Your task to perform on an android device: turn on javascript in the chrome app Image 0: 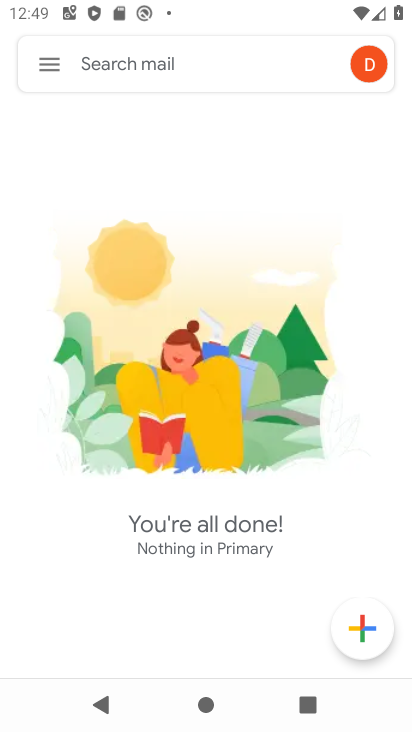
Step 0: press home button
Your task to perform on an android device: turn on javascript in the chrome app Image 1: 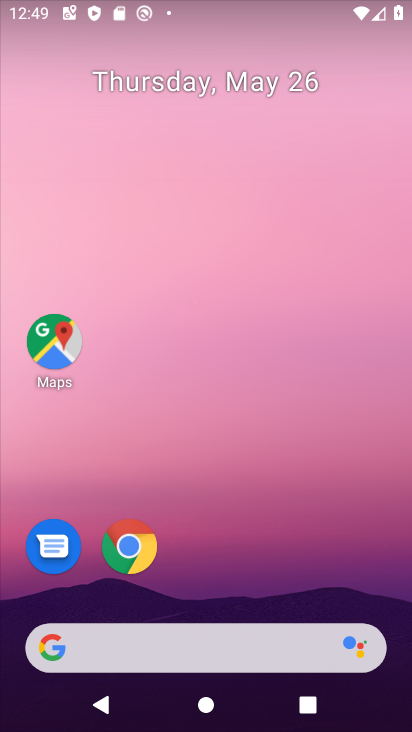
Step 1: click (124, 550)
Your task to perform on an android device: turn on javascript in the chrome app Image 2: 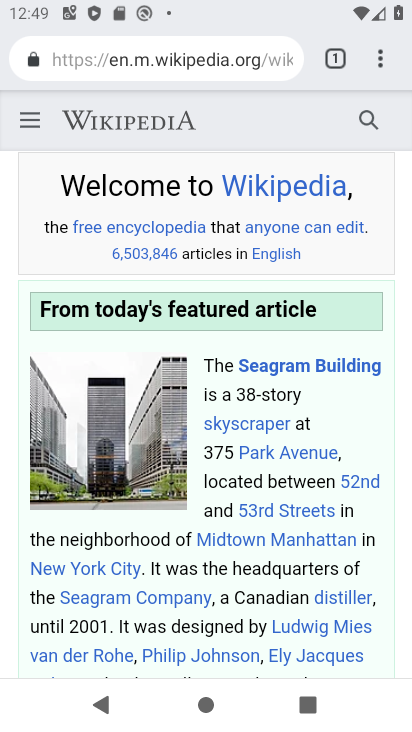
Step 2: drag from (374, 56) to (202, 585)
Your task to perform on an android device: turn on javascript in the chrome app Image 3: 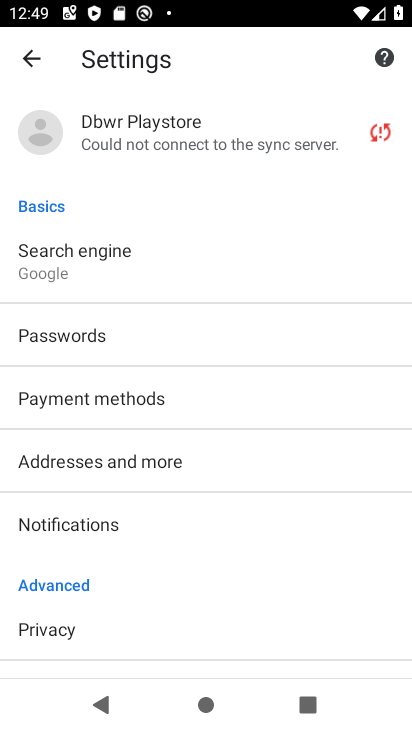
Step 3: drag from (202, 580) to (212, 281)
Your task to perform on an android device: turn on javascript in the chrome app Image 4: 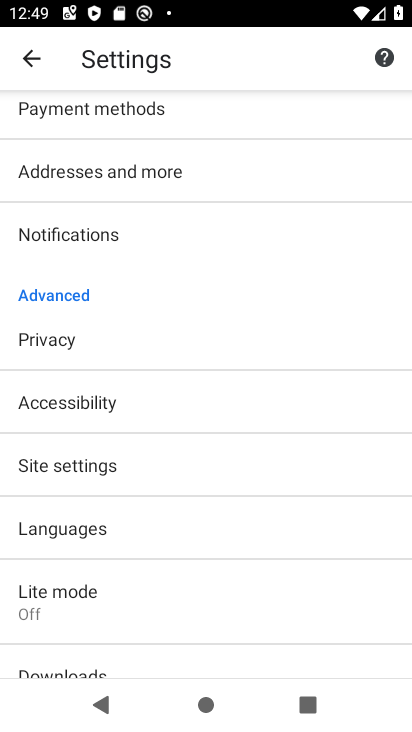
Step 4: click (56, 480)
Your task to perform on an android device: turn on javascript in the chrome app Image 5: 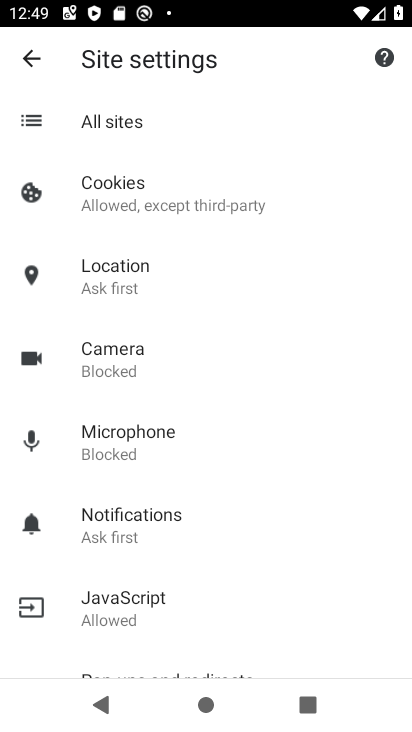
Step 5: click (165, 606)
Your task to perform on an android device: turn on javascript in the chrome app Image 6: 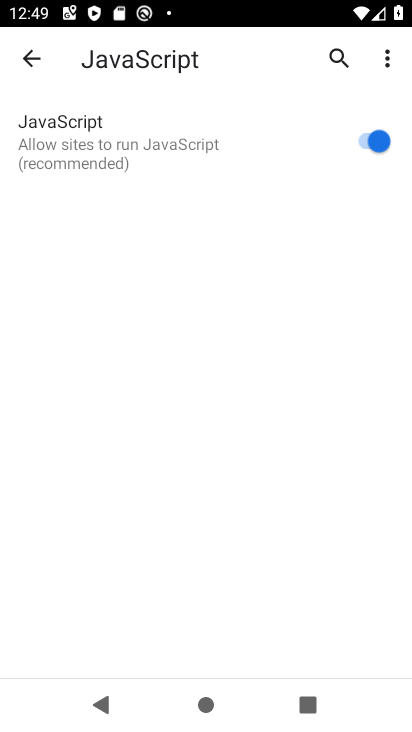
Step 6: task complete